Your task to perform on an android device: check storage Image 0: 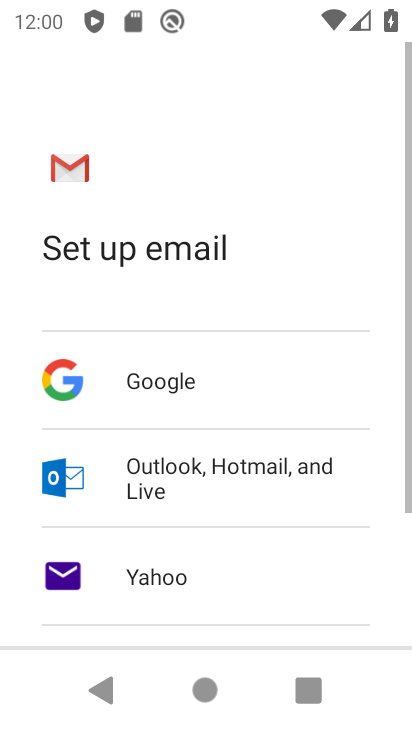
Step 0: press home button
Your task to perform on an android device: check storage Image 1: 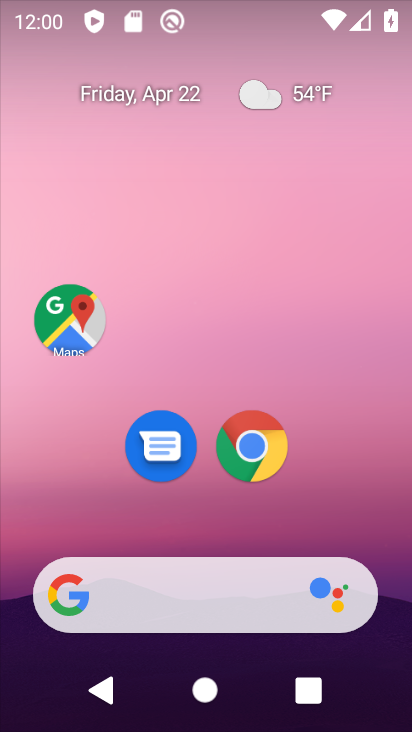
Step 1: drag from (397, 544) to (281, 113)
Your task to perform on an android device: check storage Image 2: 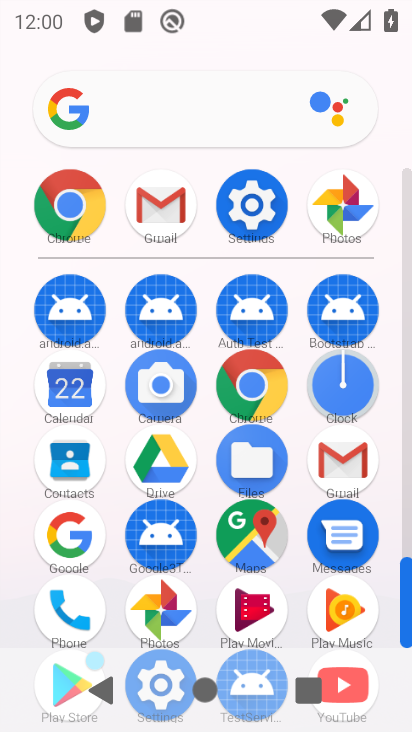
Step 2: click (267, 212)
Your task to perform on an android device: check storage Image 3: 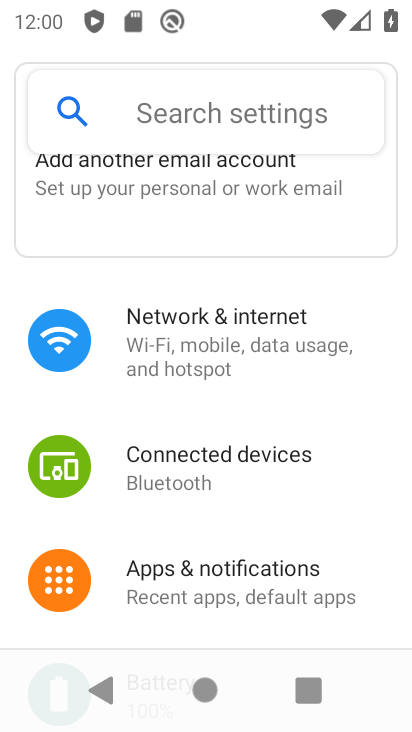
Step 3: drag from (273, 524) to (261, 137)
Your task to perform on an android device: check storage Image 4: 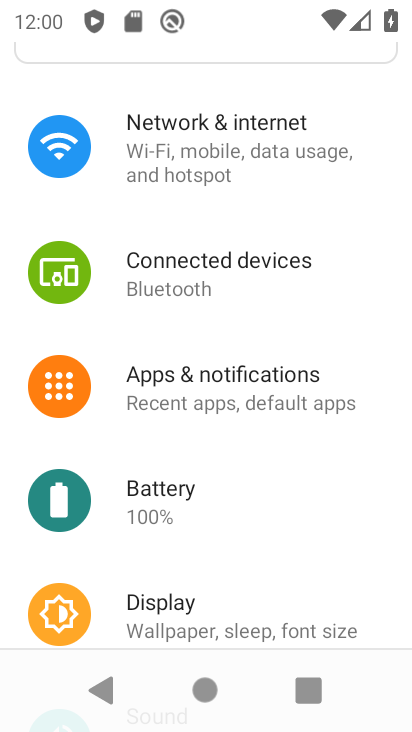
Step 4: drag from (303, 529) to (274, 71)
Your task to perform on an android device: check storage Image 5: 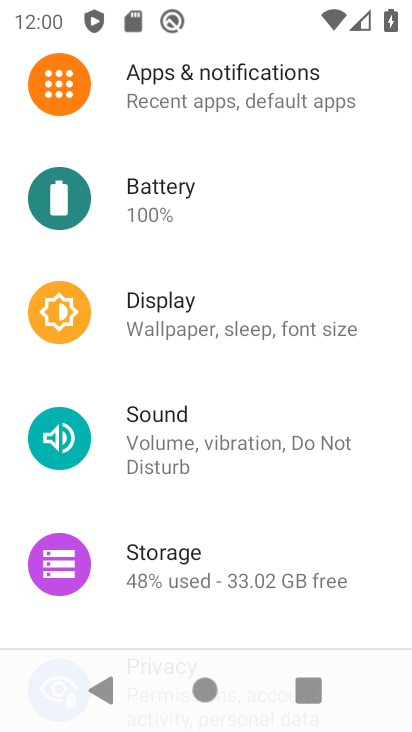
Step 5: click (285, 559)
Your task to perform on an android device: check storage Image 6: 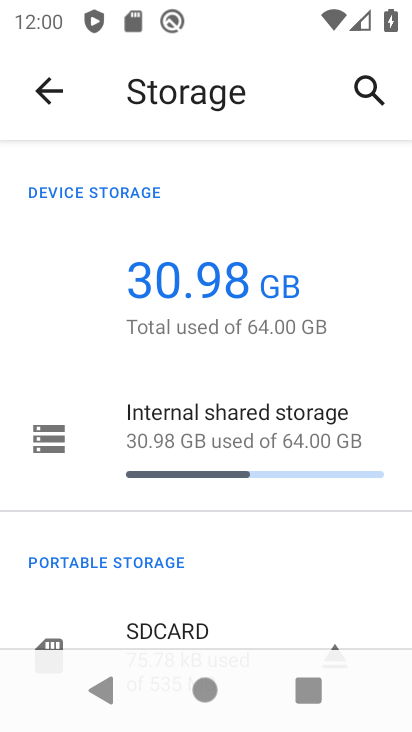
Step 6: task complete